Your task to perform on an android device: Show me popular games on the Play Store Image 0: 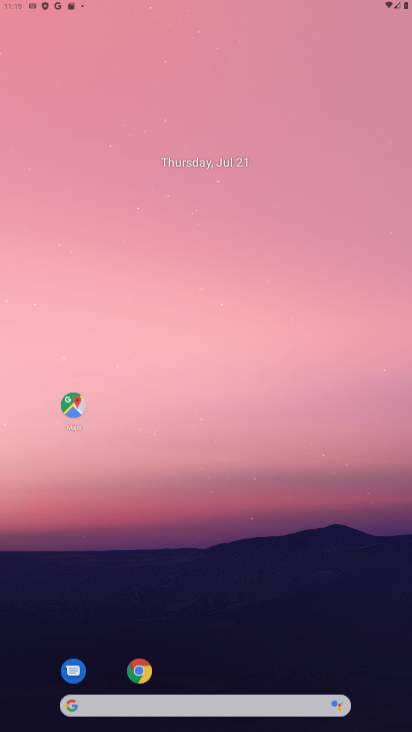
Step 0: press home button
Your task to perform on an android device: Show me popular games on the Play Store Image 1: 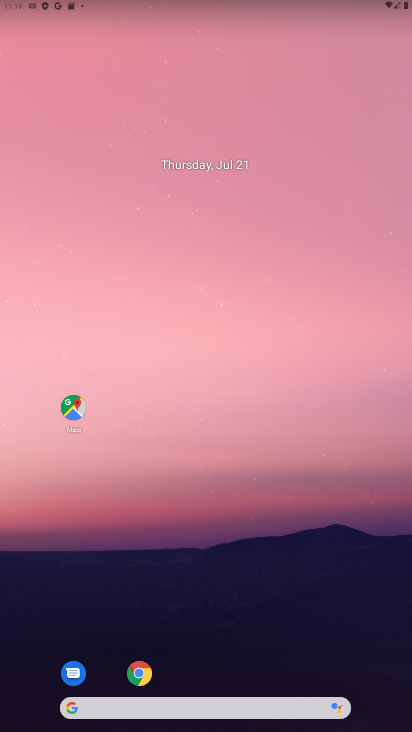
Step 1: drag from (210, 676) to (222, 20)
Your task to perform on an android device: Show me popular games on the Play Store Image 2: 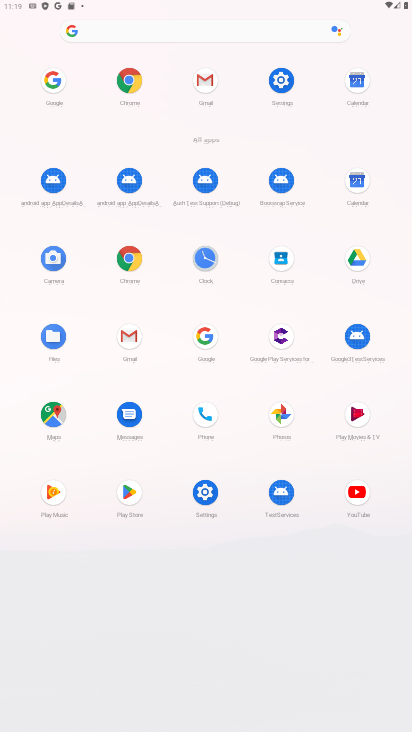
Step 2: click (129, 490)
Your task to perform on an android device: Show me popular games on the Play Store Image 3: 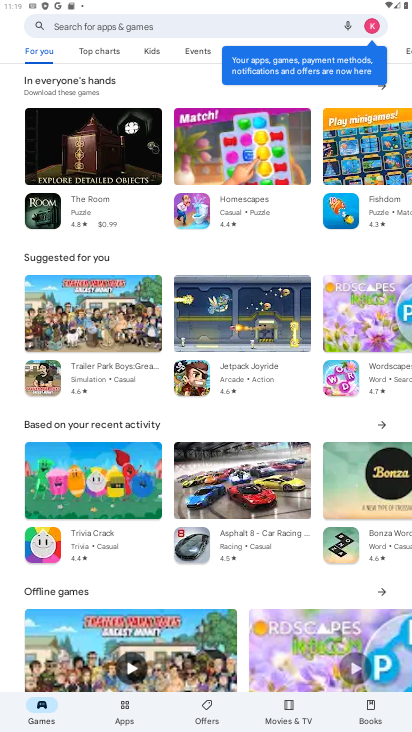
Step 3: task complete